Your task to perform on an android device: add a contact in the contacts app Image 0: 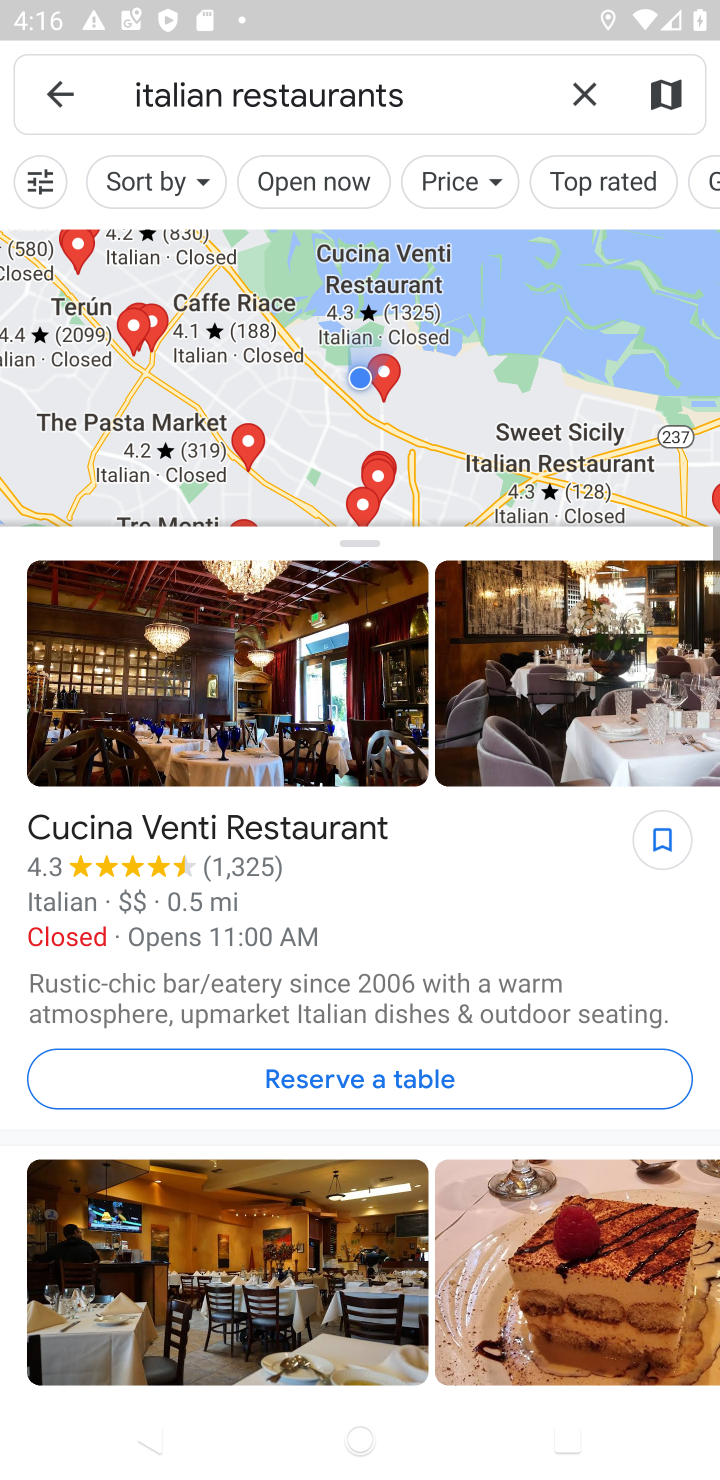
Step 0: press home button
Your task to perform on an android device: add a contact in the contacts app Image 1: 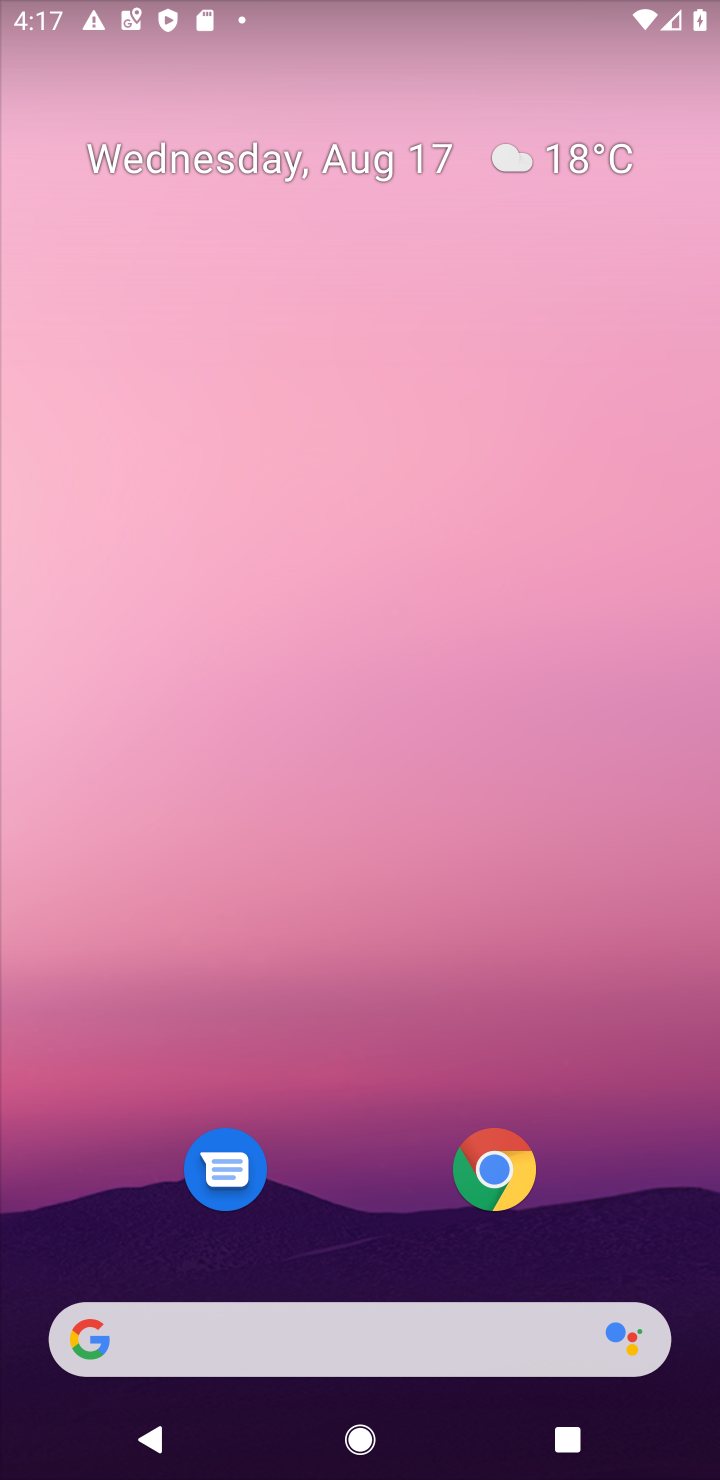
Step 1: drag from (405, 938) to (471, 384)
Your task to perform on an android device: add a contact in the contacts app Image 2: 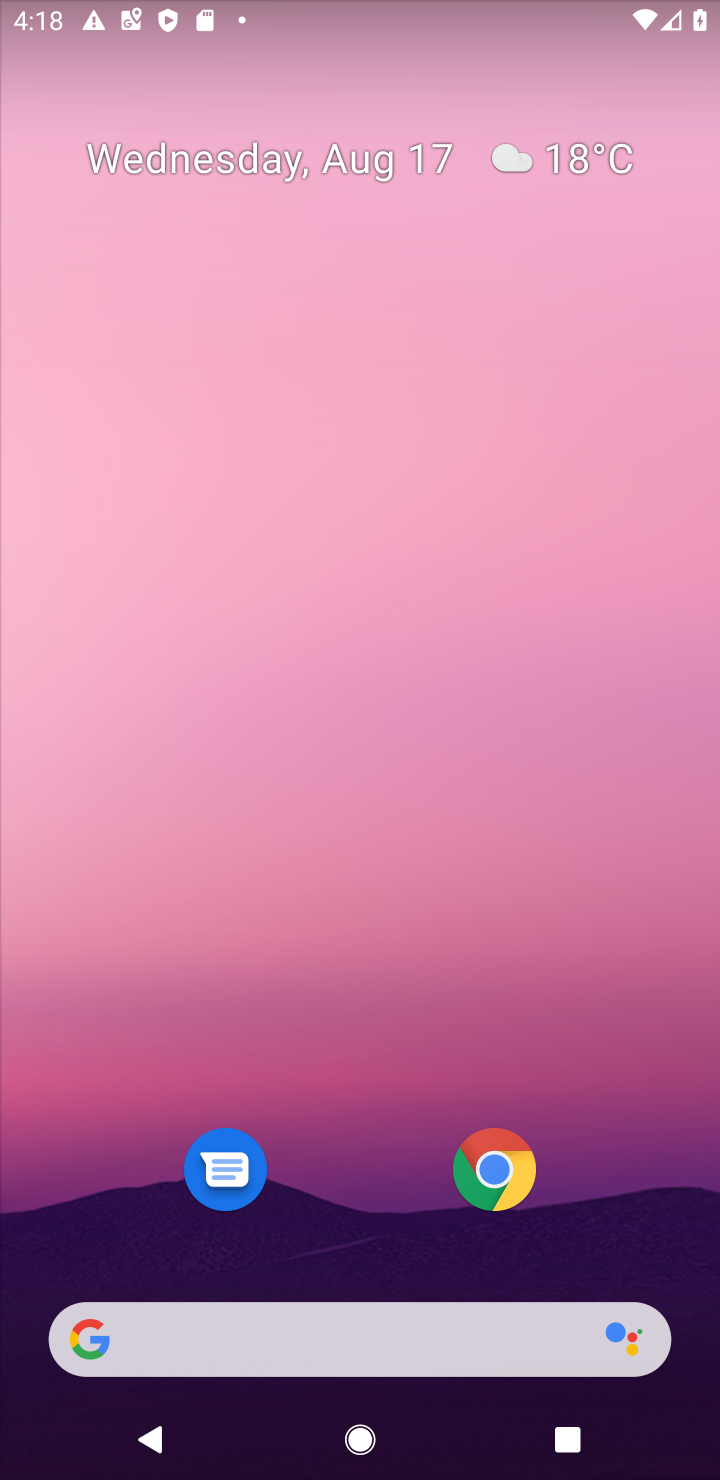
Step 2: drag from (420, 1220) to (542, 347)
Your task to perform on an android device: add a contact in the contacts app Image 3: 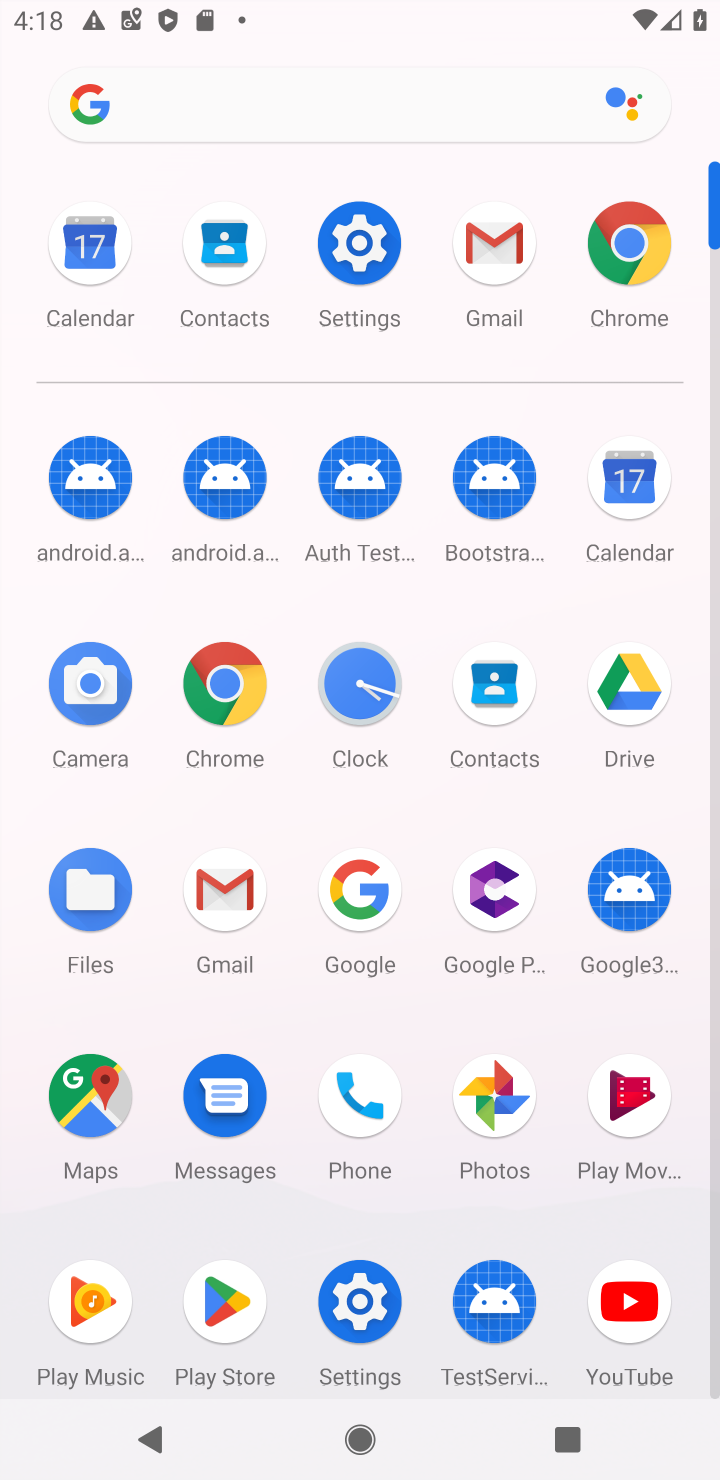
Step 3: click (500, 675)
Your task to perform on an android device: add a contact in the contacts app Image 4: 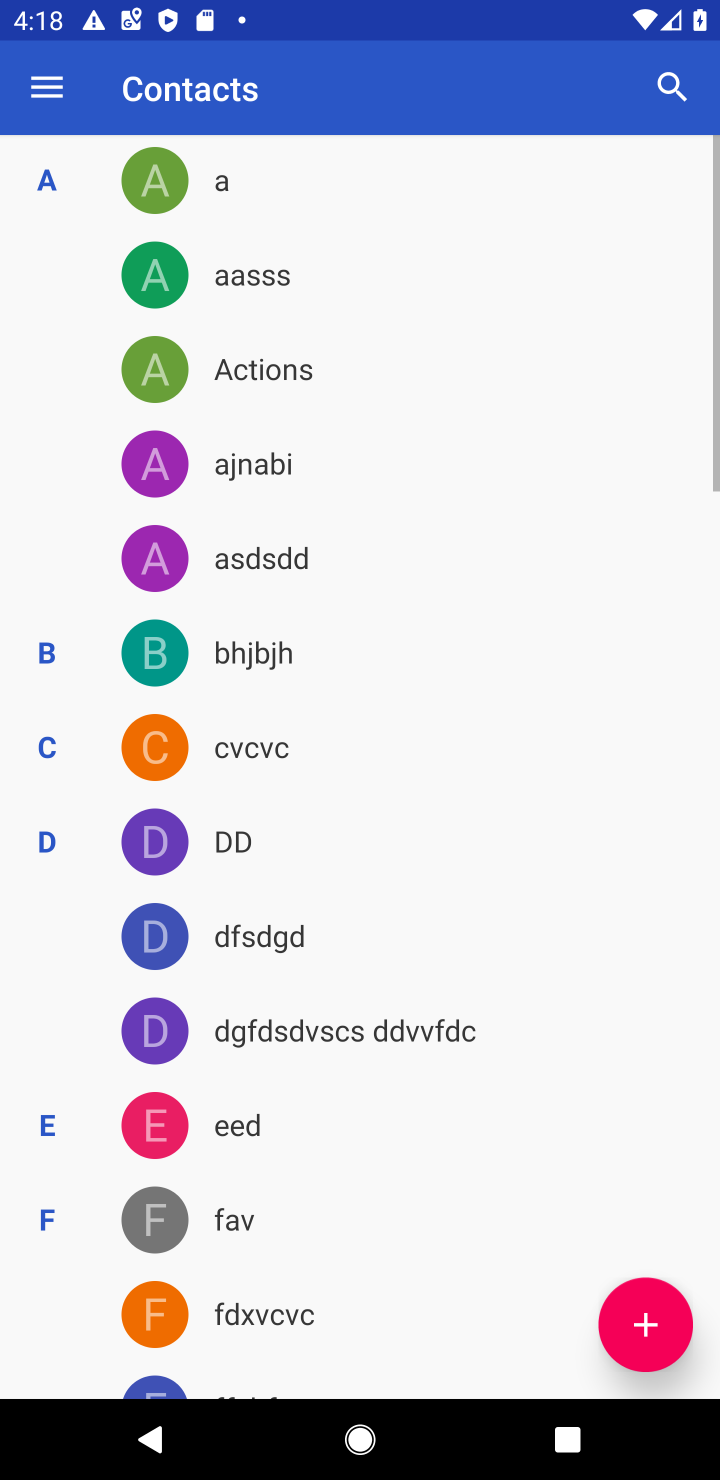
Step 4: click (634, 1302)
Your task to perform on an android device: add a contact in the contacts app Image 5: 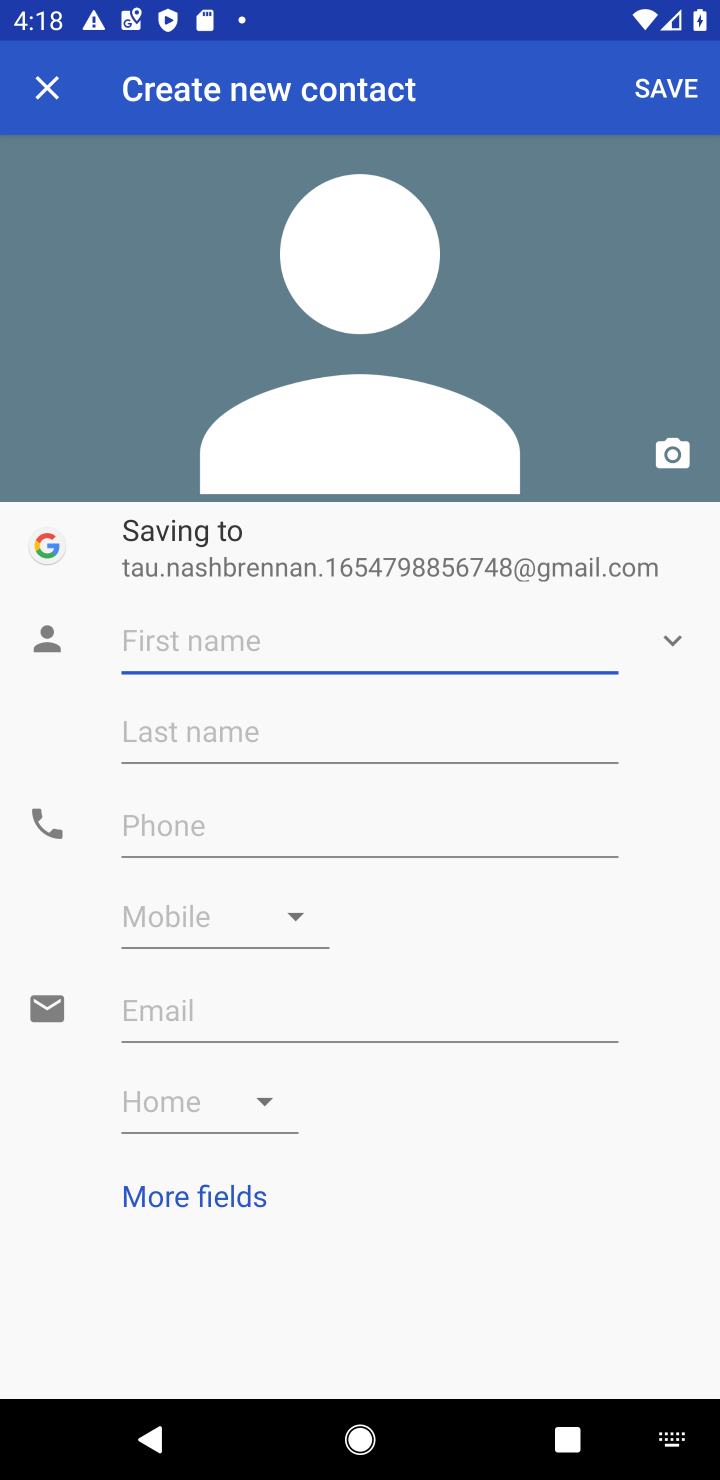
Step 5: type "bbbb"
Your task to perform on an android device: add a contact in the contacts app Image 6: 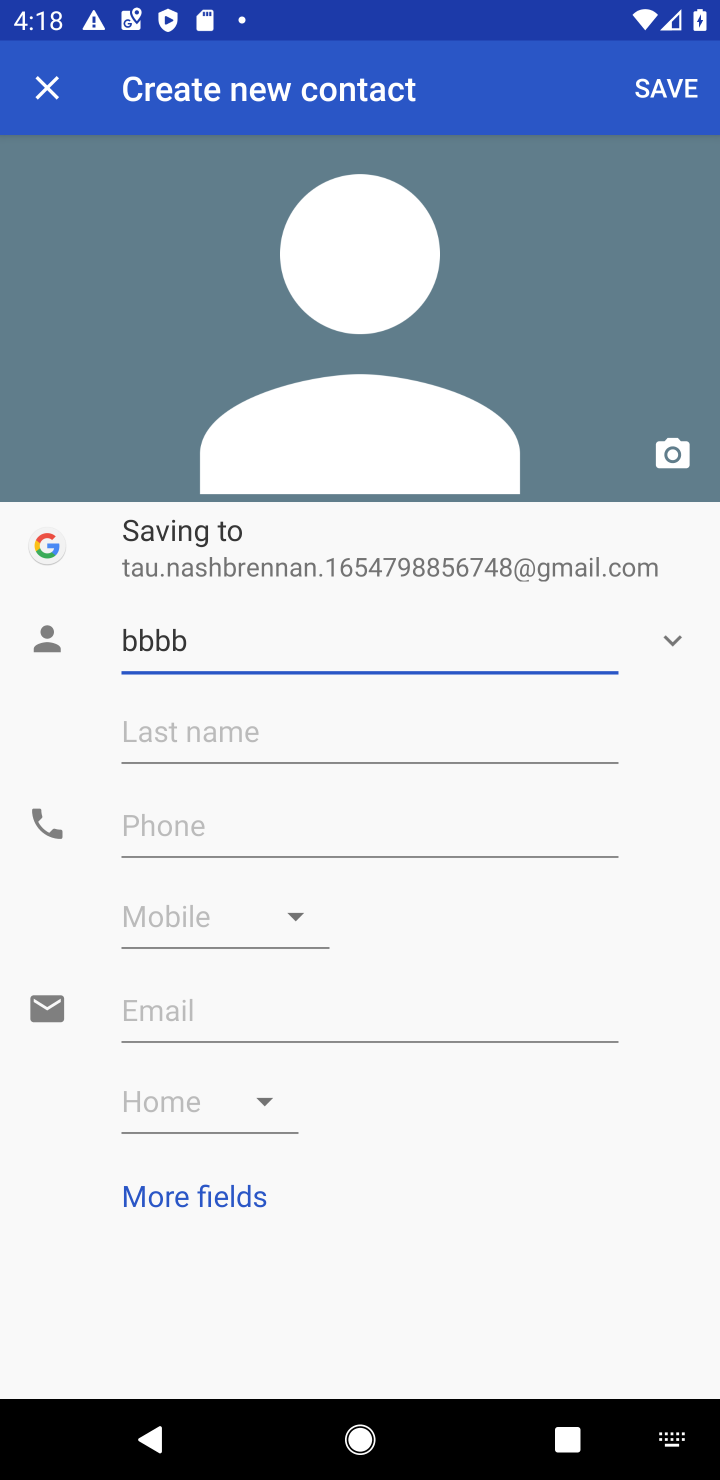
Step 6: click (343, 829)
Your task to perform on an android device: add a contact in the contacts app Image 7: 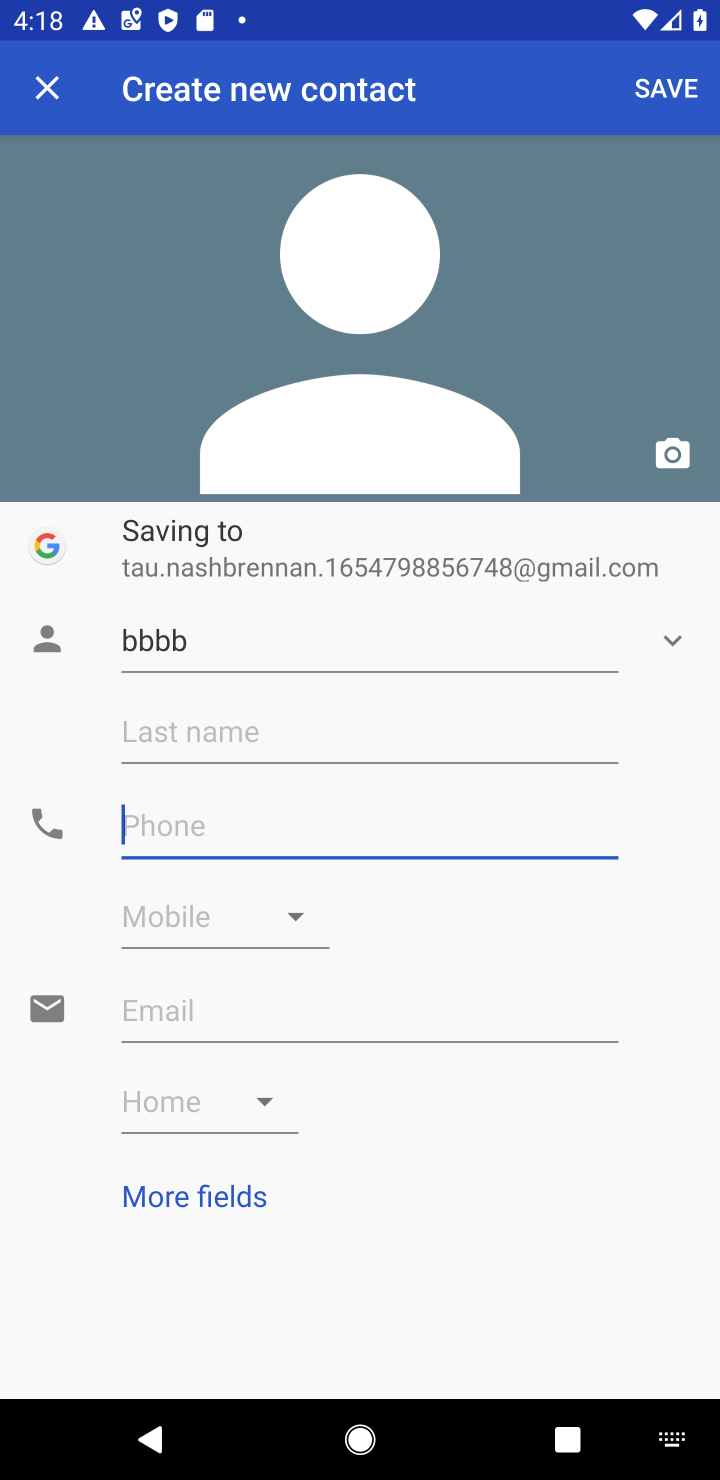
Step 7: type "989"
Your task to perform on an android device: add a contact in the contacts app Image 8: 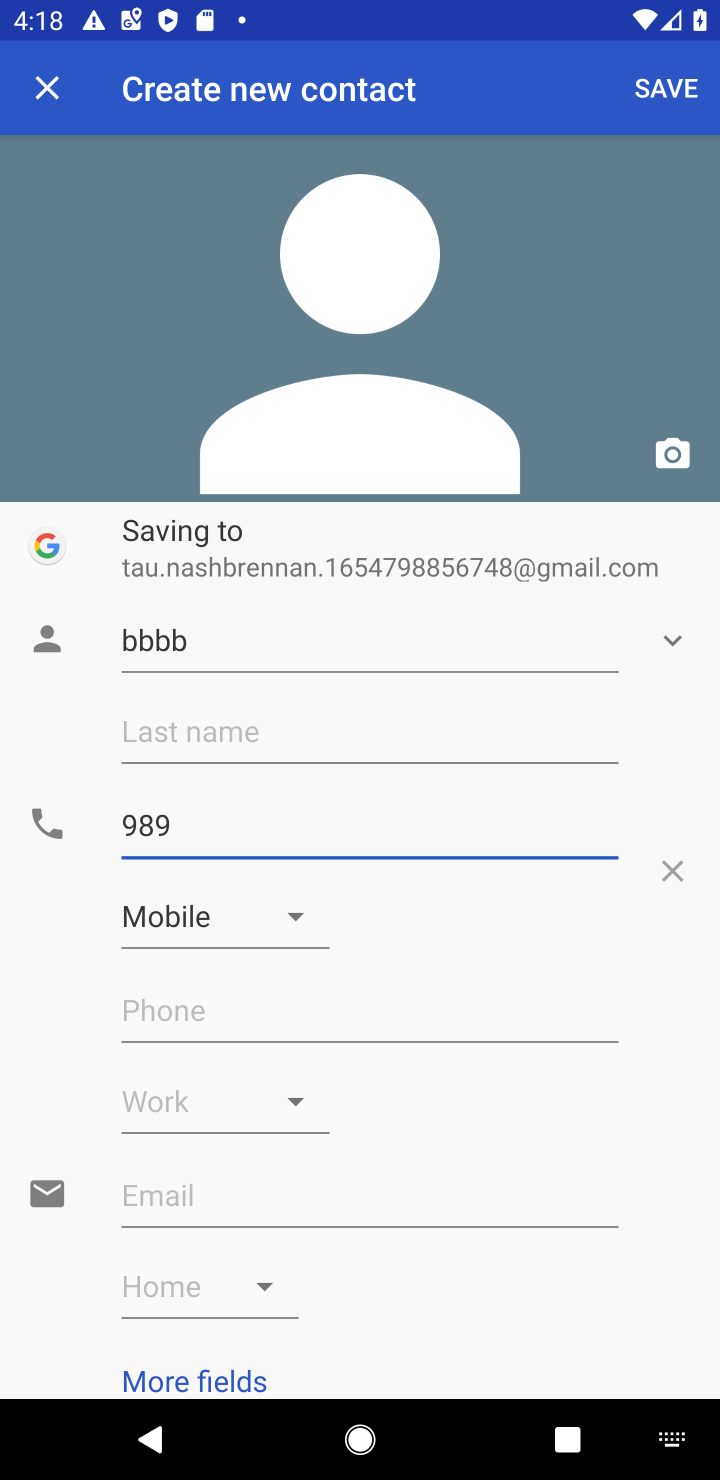
Step 8: click (682, 85)
Your task to perform on an android device: add a contact in the contacts app Image 9: 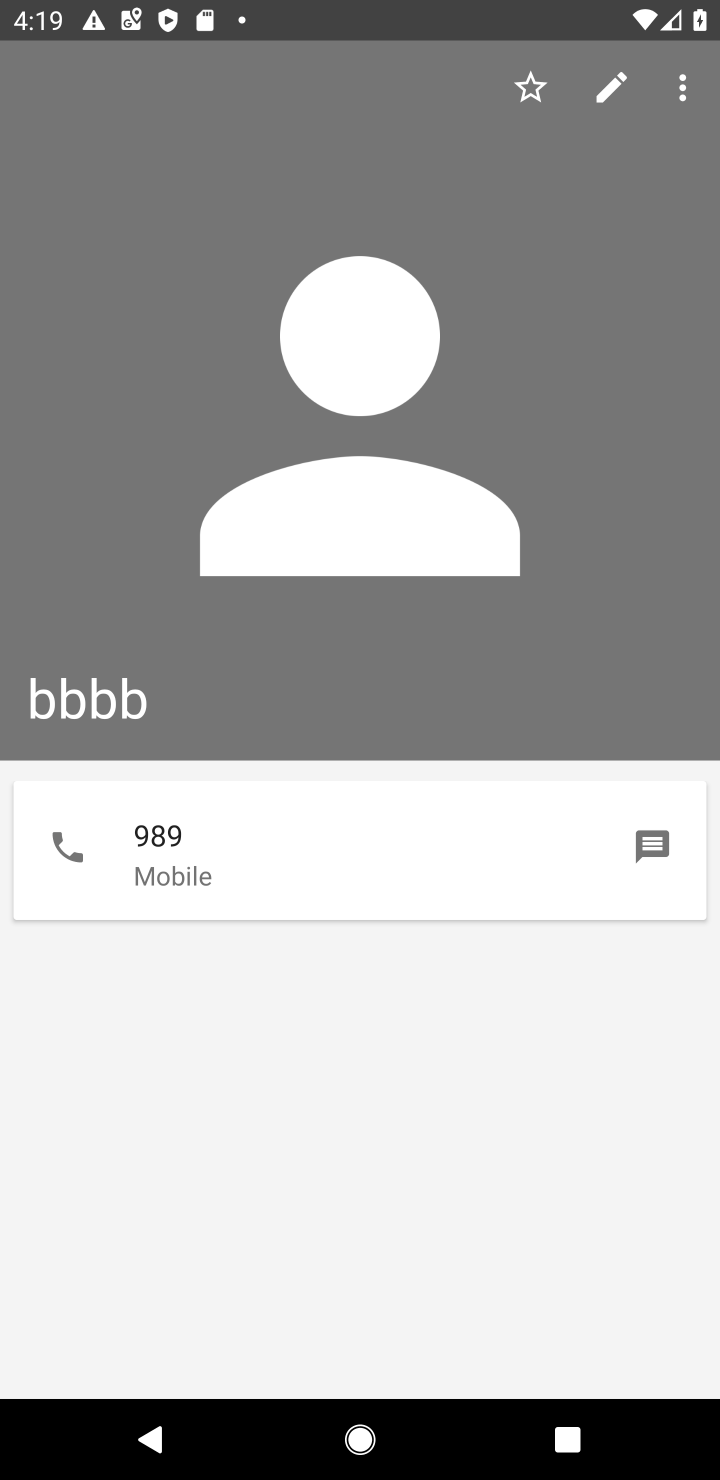
Step 9: task complete